Your task to perform on an android device: Go to Reddit.com Image 0: 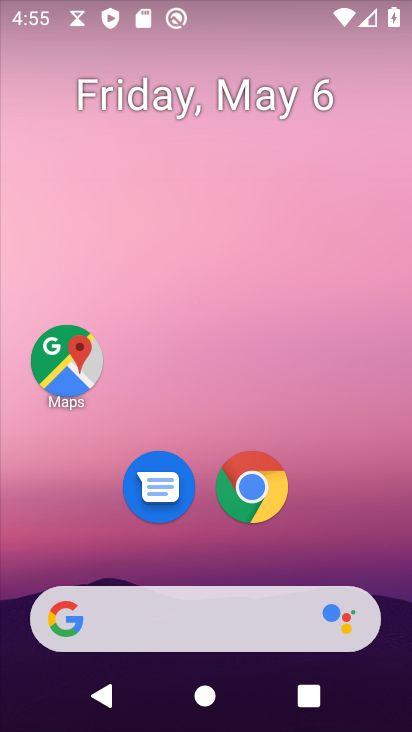
Step 0: click (253, 486)
Your task to perform on an android device: Go to Reddit.com Image 1: 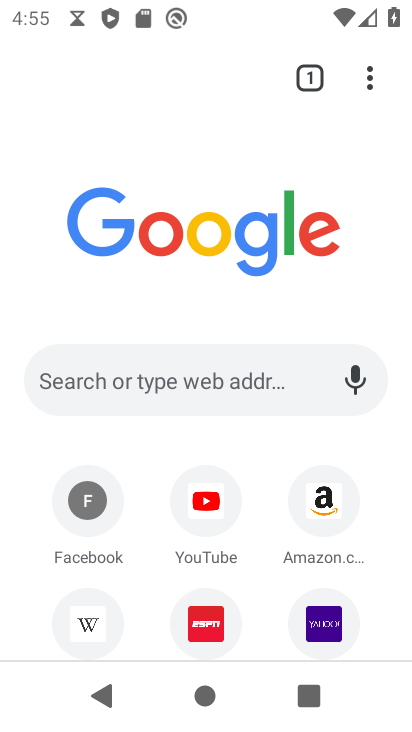
Step 1: click (207, 378)
Your task to perform on an android device: Go to Reddit.com Image 2: 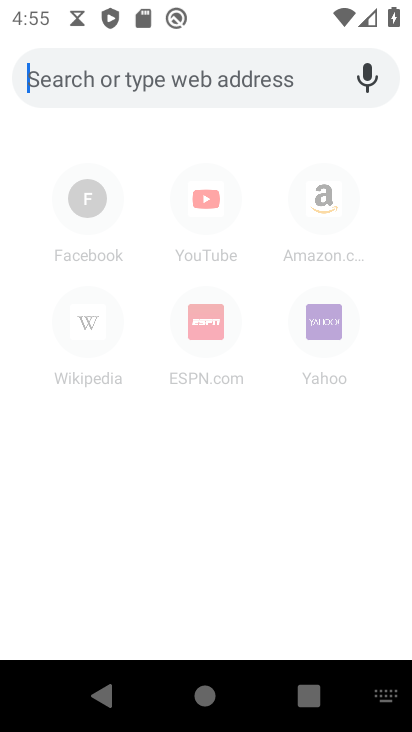
Step 2: type "Reddit.com"
Your task to perform on an android device: Go to Reddit.com Image 3: 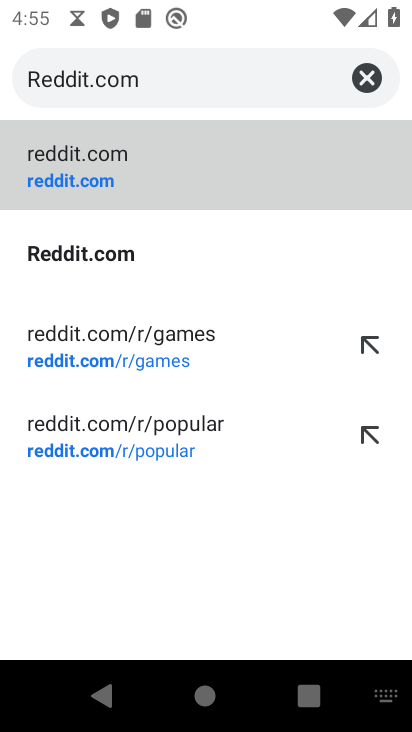
Step 3: click (127, 256)
Your task to perform on an android device: Go to Reddit.com Image 4: 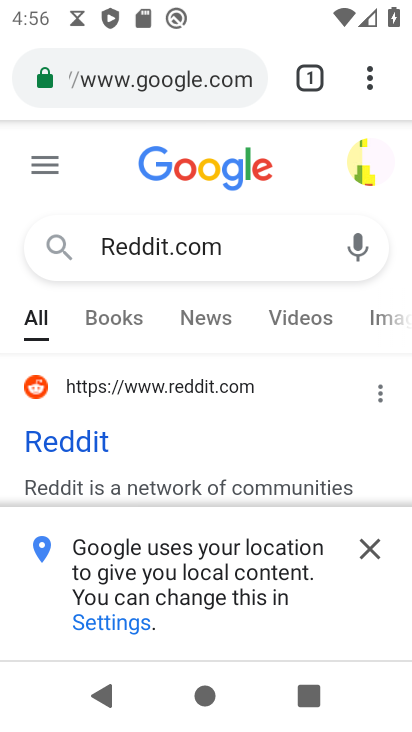
Step 4: click (373, 550)
Your task to perform on an android device: Go to Reddit.com Image 5: 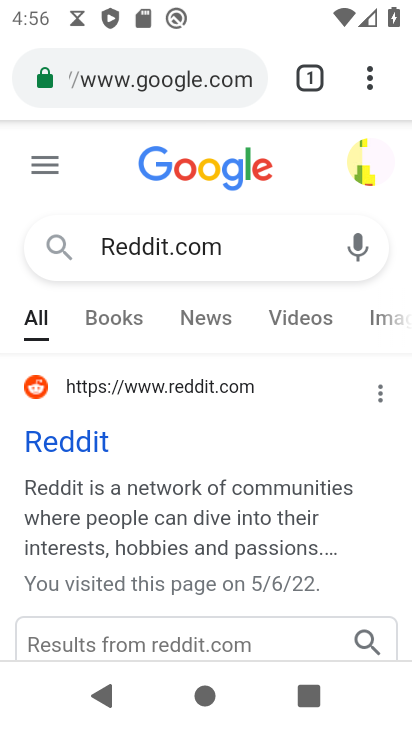
Step 5: click (90, 441)
Your task to perform on an android device: Go to Reddit.com Image 6: 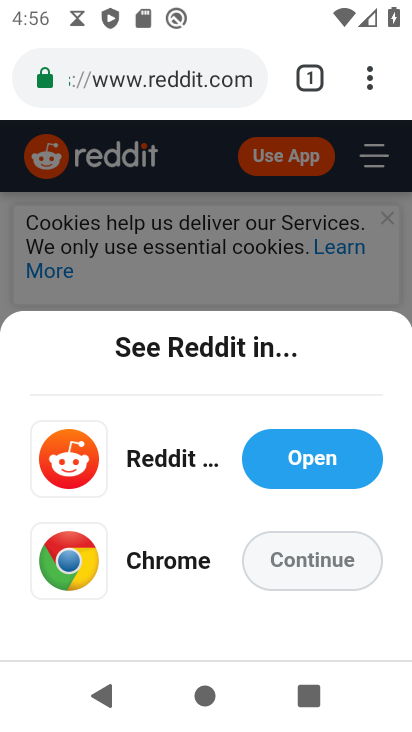
Step 6: task complete